Your task to perform on an android device: Turn off the flashlight Image 0: 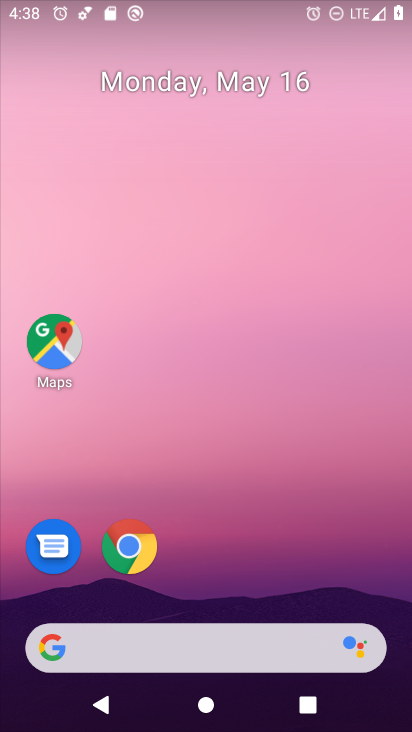
Step 0: drag from (269, 12) to (251, 379)
Your task to perform on an android device: Turn off the flashlight Image 1: 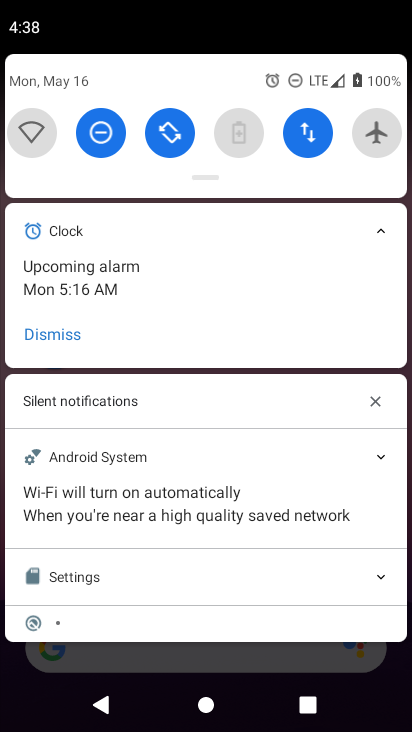
Step 1: drag from (197, 82) to (206, 351)
Your task to perform on an android device: Turn off the flashlight Image 2: 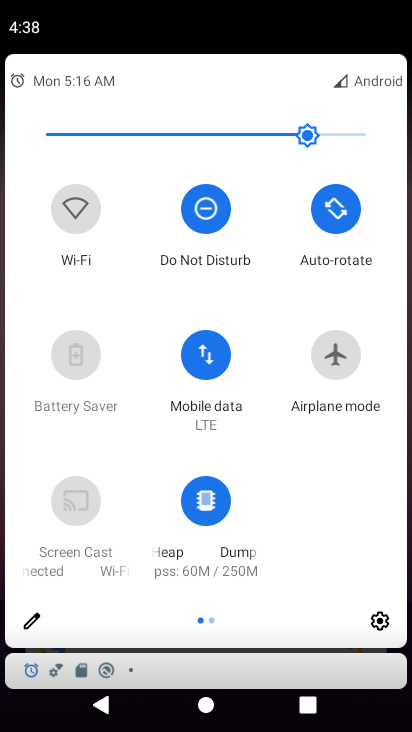
Step 2: click (39, 635)
Your task to perform on an android device: Turn off the flashlight Image 3: 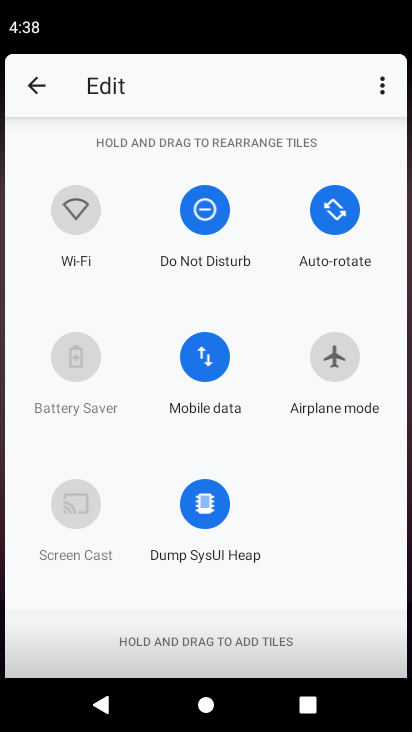
Step 3: task complete